Your task to perform on an android device: Open Google Maps Image 0: 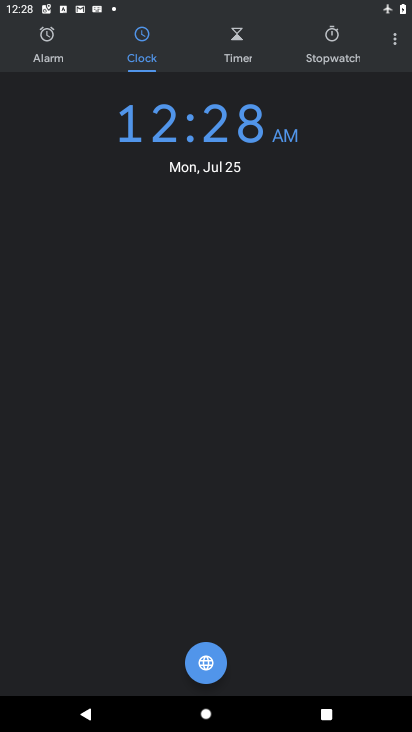
Step 0: press home button
Your task to perform on an android device: Open Google Maps Image 1: 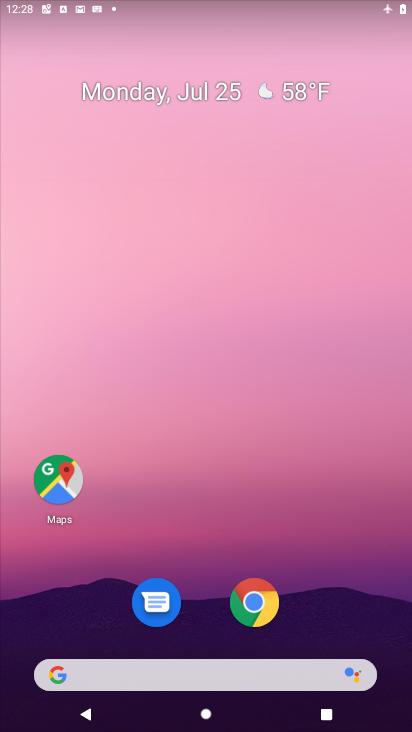
Step 1: click (41, 501)
Your task to perform on an android device: Open Google Maps Image 2: 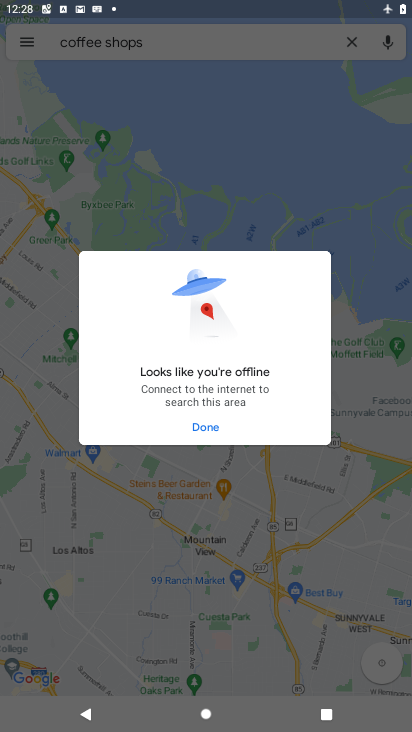
Step 2: task complete